Your task to perform on an android device: open wifi settings Image 0: 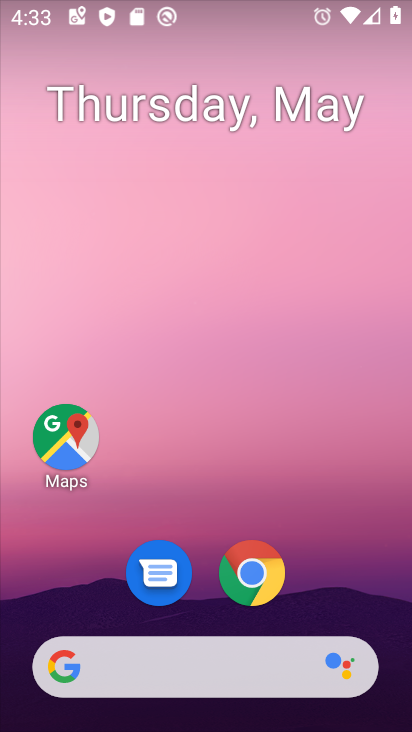
Step 0: press home button
Your task to perform on an android device: open wifi settings Image 1: 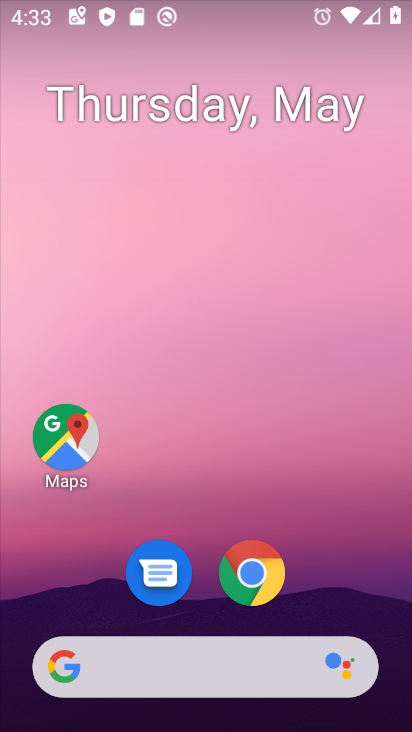
Step 1: drag from (314, 563) to (255, 135)
Your task to perform on an android device: open wifi settings Image 2: 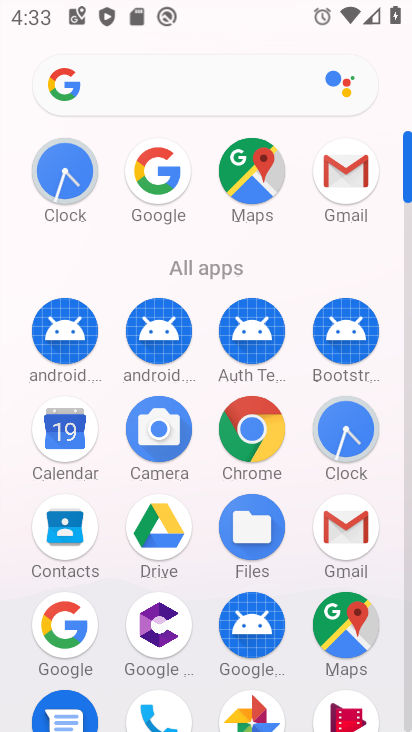
Step 2: drag from (197, 663) to (190, 268)
Your task to perform on an android device: open wifi settings Image 3: 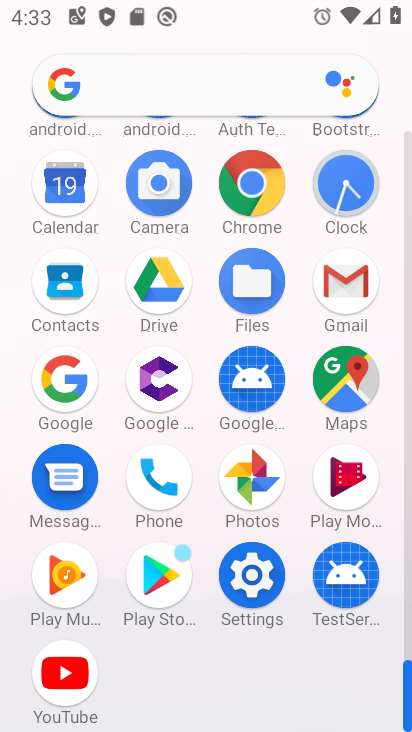
Step 3: click (248, 568)
Your task to perform on an android device: open wifi settings Image 4: 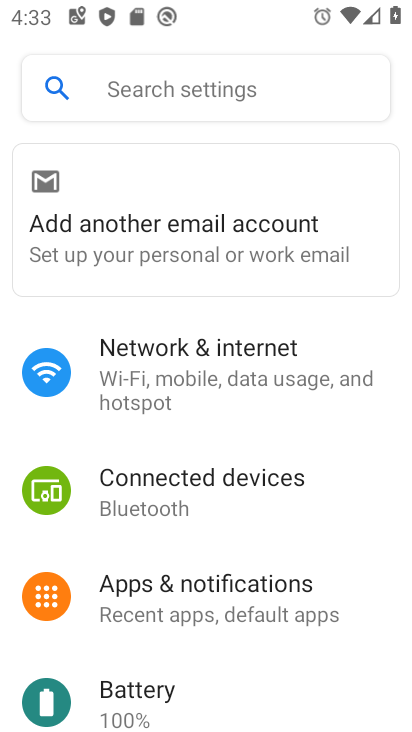
Step 4: click (201, 370)
Your task to perform on an android device: open wifi settings Image 5: 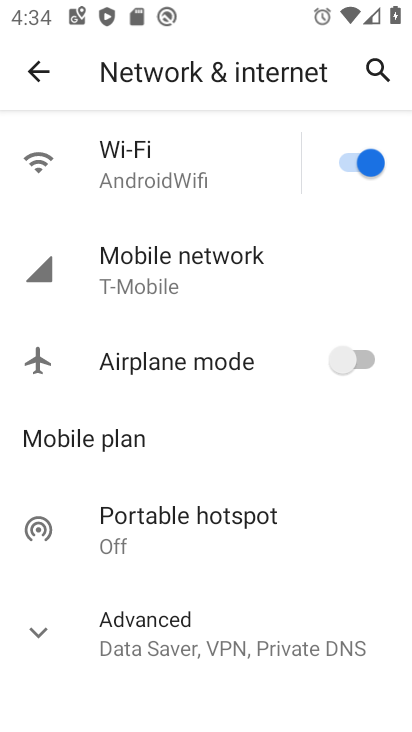
Step 5: click (168, 168)
Your task to perform on an android device: open wifi settings Image 6: 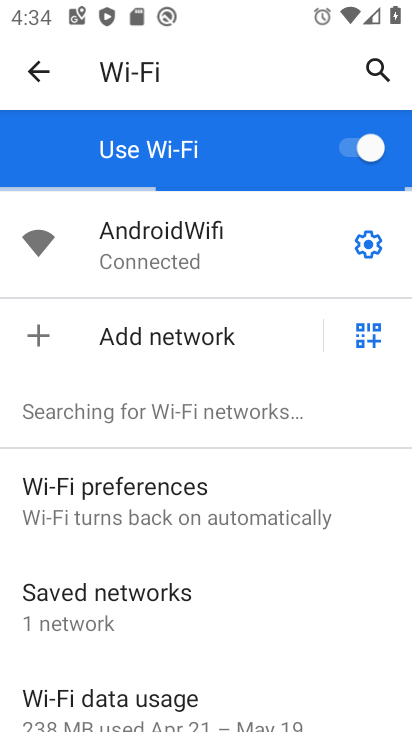
Step 6: task complete